Your task to perform on an android device: Go to ESPN.com Image 0: 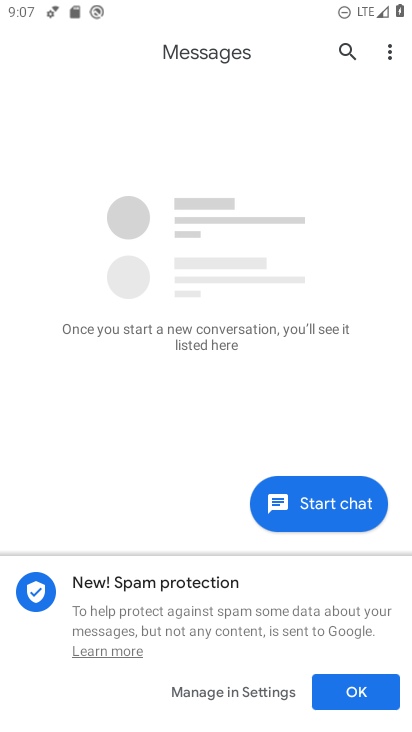
Step 0: press home button
Your task to perform on an android device: Go to ESPN.com Image 1: 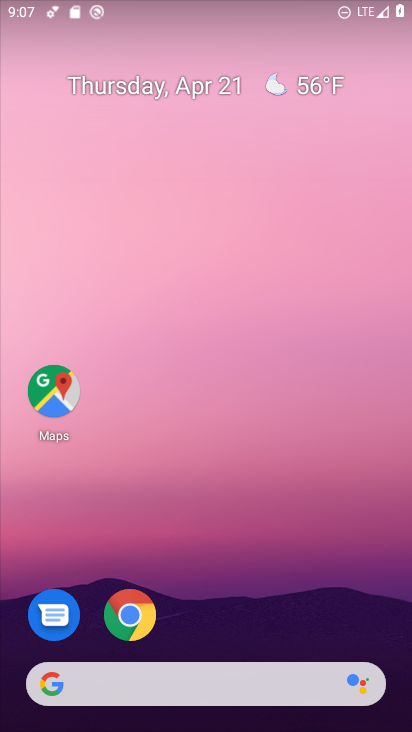
Step 1: drag from (308, 543) to (360, 64)
Your task to perform on an android device: Go to ESPN.com Image 2: 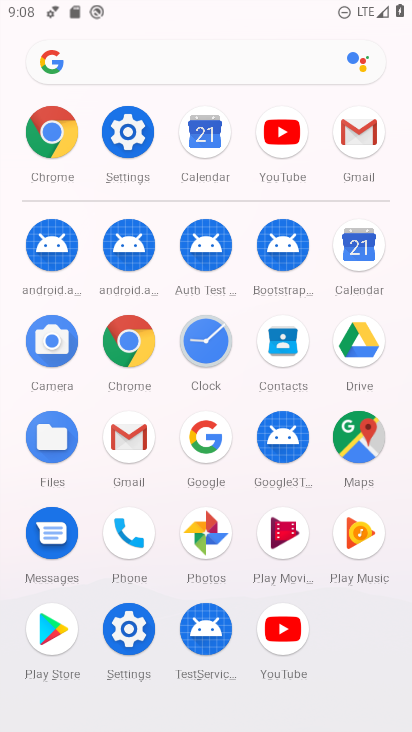
Step 2: click (52, 126)
Your task to perform on an android device: Go to ESPN.com Image 3: 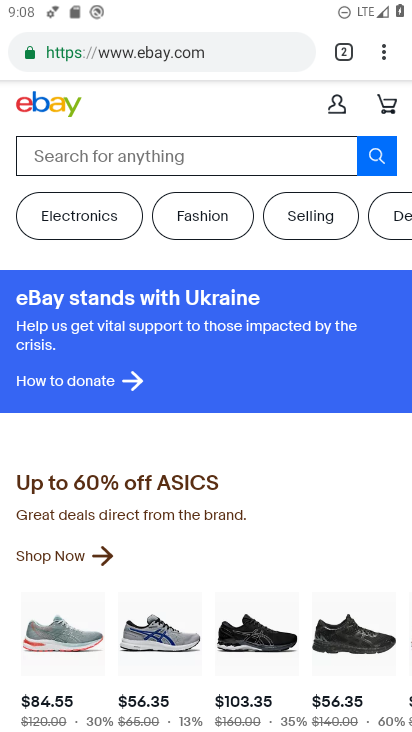
Step 3: drag from (383, 53) to (156, 98)
Your task to perform on an android device: Go to ESPN.com Image 4: 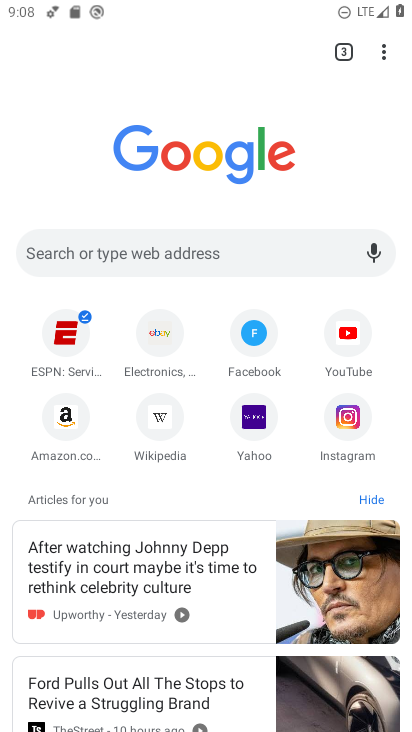
Step 4: click (62, 339)
Your task to perform on an android device: Go to ESPN.com Image 5: 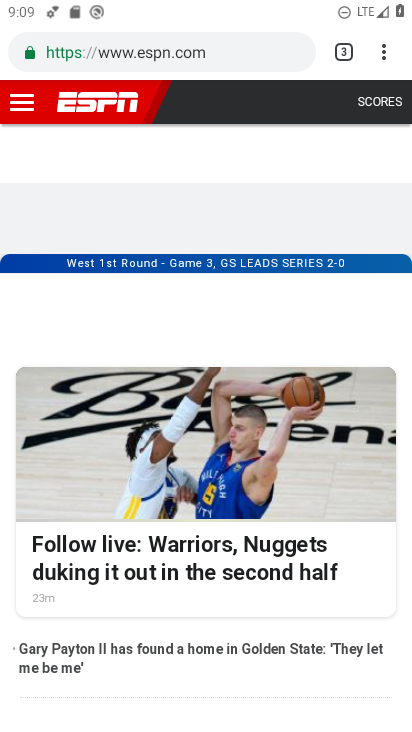
Step 5: task complete